Your task to perform on an android device: What's the weather going to be this weekend? Image 0: 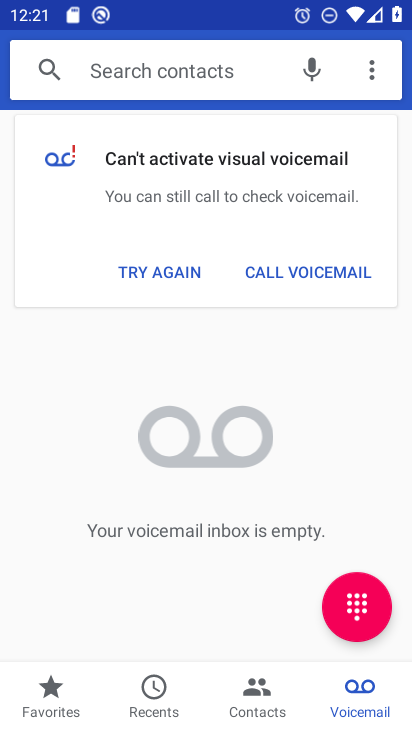
Step 0: press home button
Your task to perform on an android device: What's the weather going to be this weekend? Image 1: 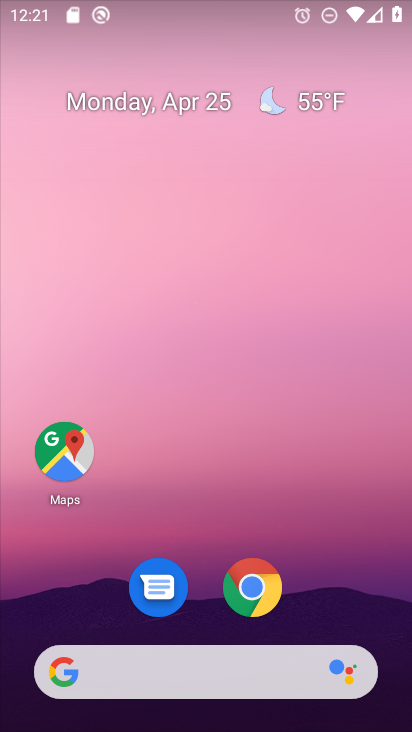
Step 1: drag from (336, 558) to (310, 132)
Your task to perform on an android device: What's the weather going to be this weekend? Image 2: 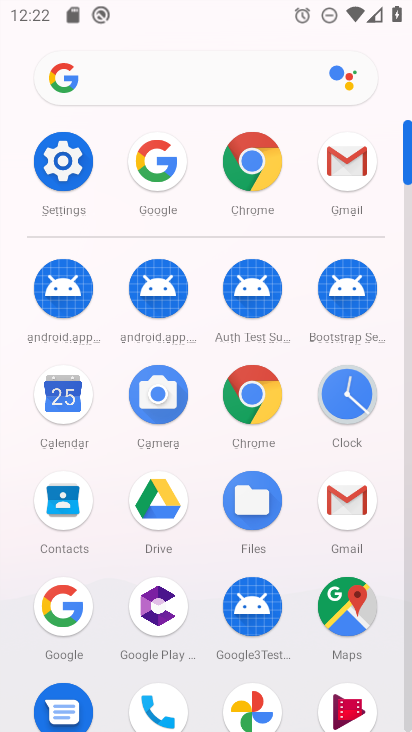
Step 2: press home button
Your task to perform on an android device: What's the weather going to be this weekend? Image 3: 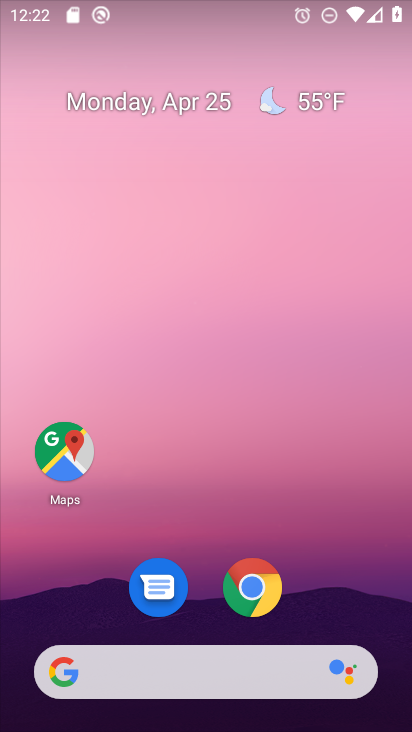
Step 3: click (312, 96)
Your task to perform on an android device: What's the weather going to be this weekend? Image 4: 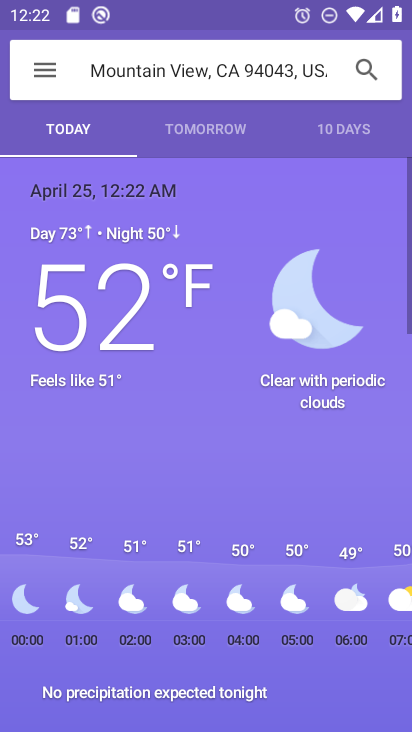
Step 4: click (364, 121)
Your task to perform on an android device: What's the weather going to be this weekend? Image 5: 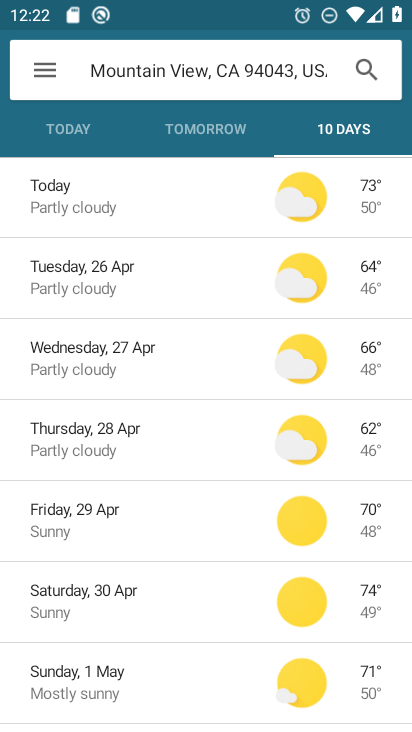
Step 5: task complete